Your task to perform on an android device: Open the web browser Image 0: 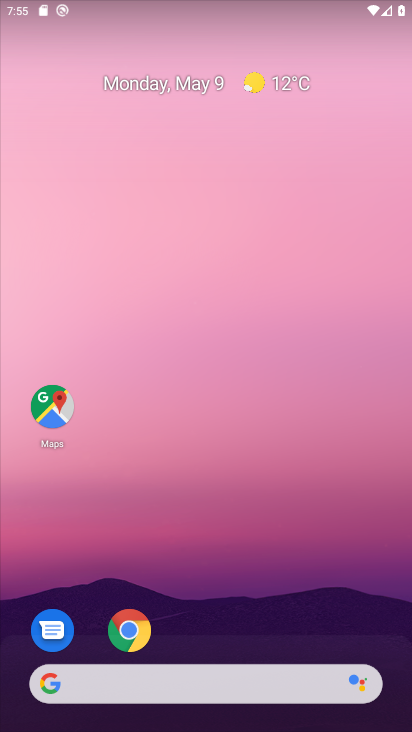
Step 0: click (114, 628)
Your task to perform on an android device: Open the web browser Image 1: 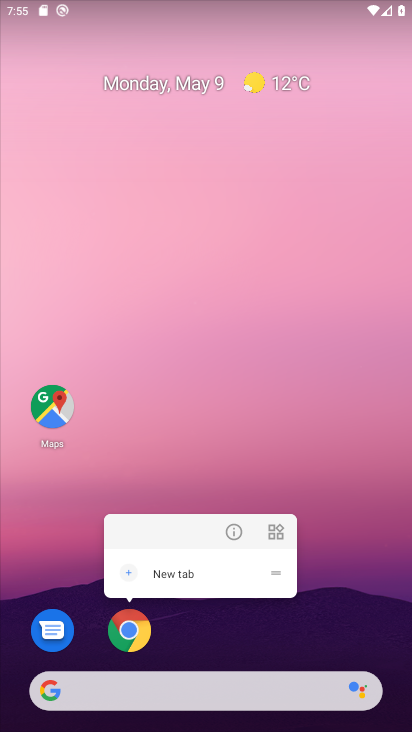
Step 1: click (131, 640)
Your task to perform on an android device: Open the web browser Image 2: 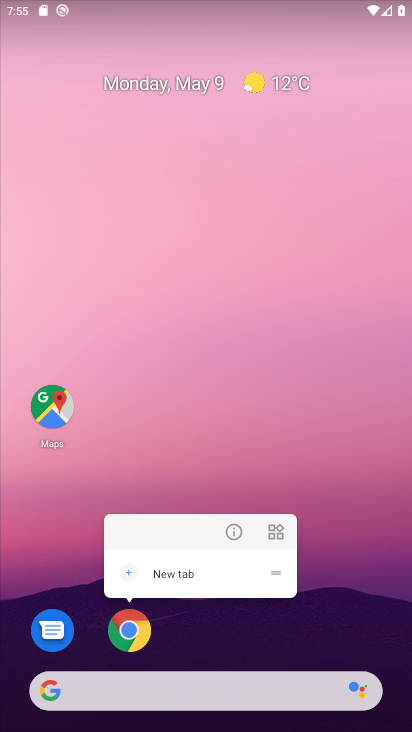
Step 2: click (220, 667)
Your task to perform on an android device: Open the web browser Image 3: 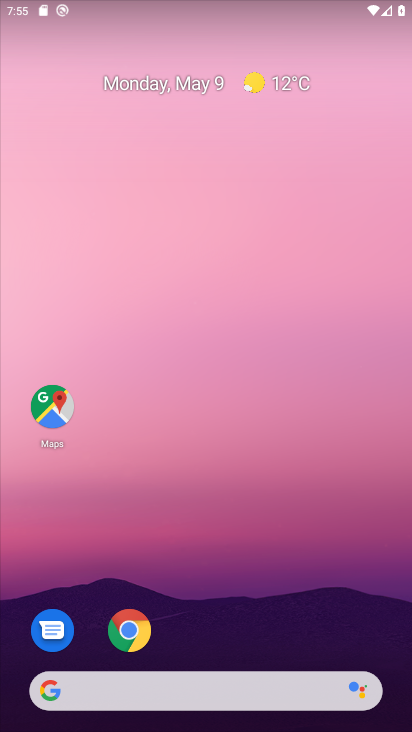
Step 3: drag from (210, 669) to (211, 287)
Your task to perform on an android device: Open the web browser Image 4: 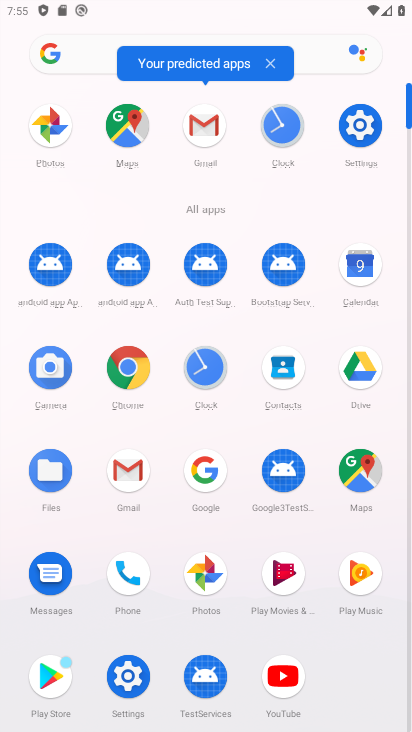
Step 4: click (134, 362)
Your task to perform on an android device: Open the web browser Image 5: 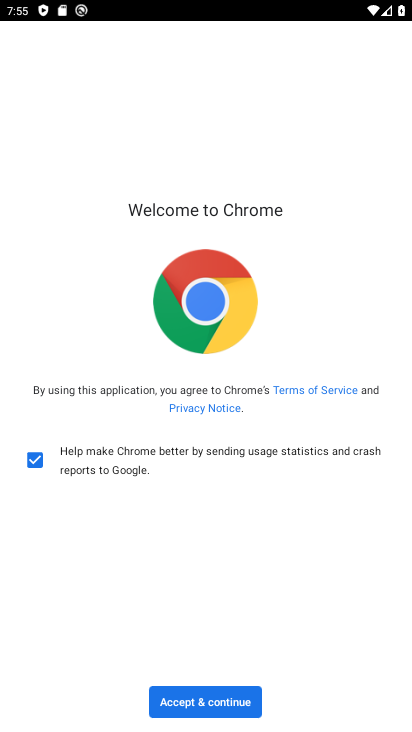
Step 5: click (193, 710)
Your task to perform on an android device: Open the web browser Image 6: 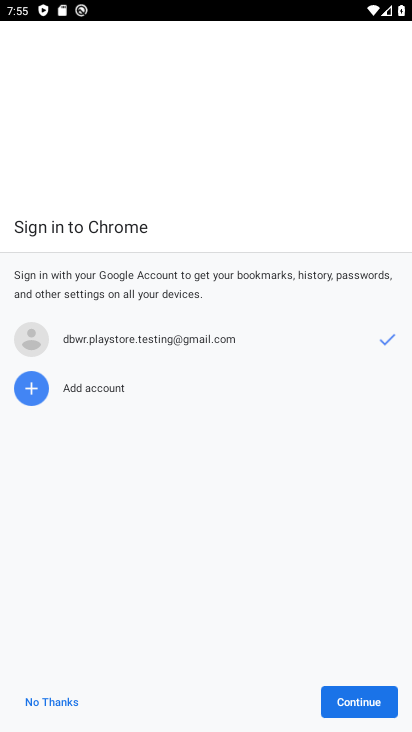
Step 6: click (386, 700)
Your task to perform on an android device: Open the web browser Image 7: 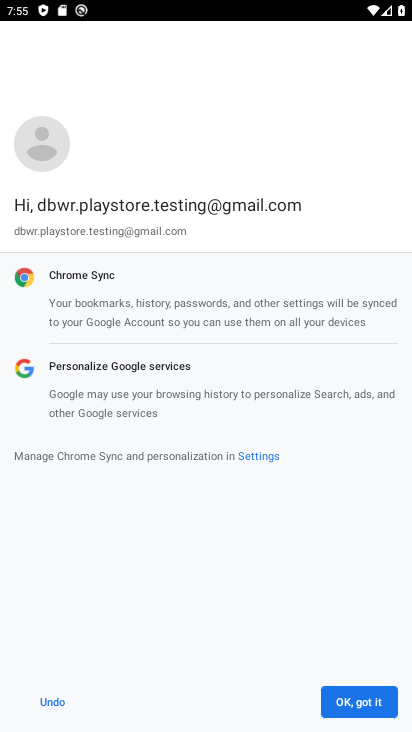
Step 7: click (368, 703)
Your task to perform on an android device: Open the web browser Image 8: 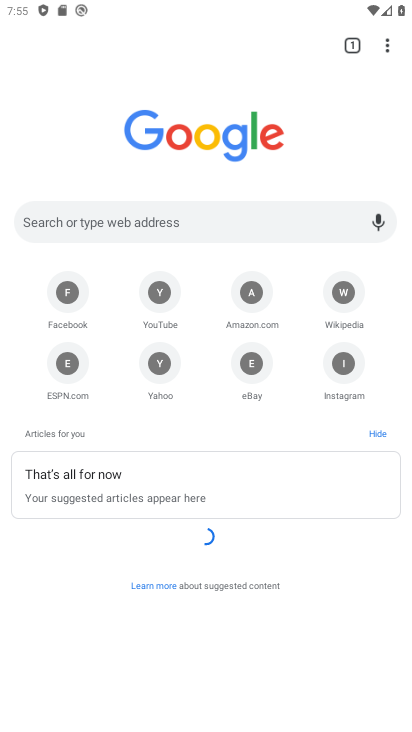
Step 8: task complete